Your task to perform on an android device: Add razer blade to the cart on walmart.com Image 0: 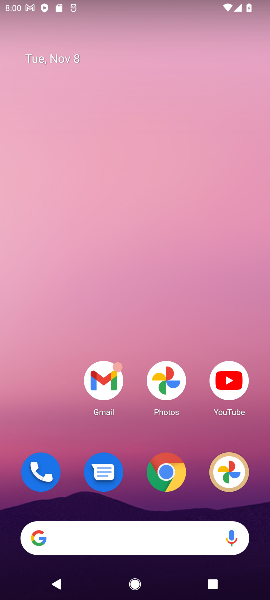
Step 0: click (163, 476)
Your task to perform on an android device: Add razer blade to the cart on walmart.com Image 1: 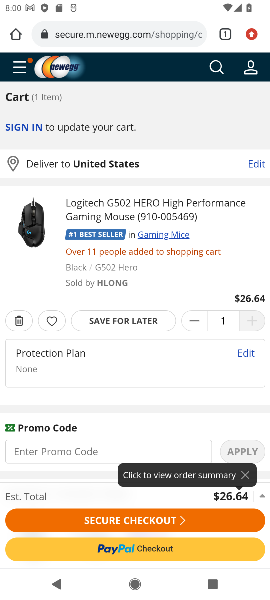
Step 1: click (147, 38)
Your task to perform on an android device: Add razer blade to the cart on walmart.com Image 2: 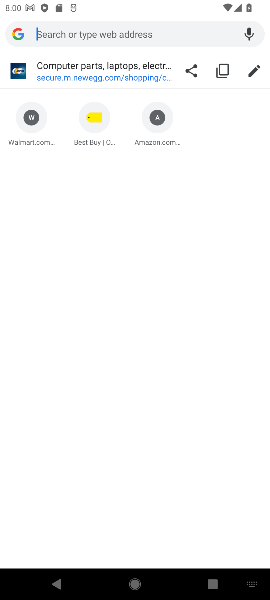
Step 2: click (28, 143)
Your task to perform on an android device: Add razer blade to the cart on walmart.com Image 3: 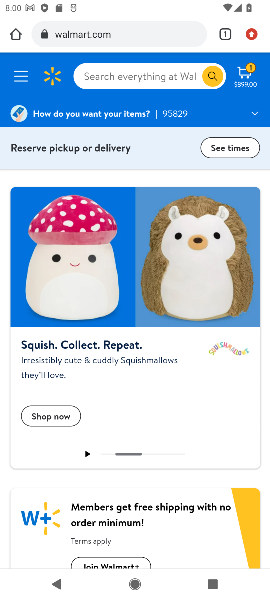
Step 3: click (152, 79)
Your task to perform on an android device: Add razer blade to the cart on walmart.com Image 4: 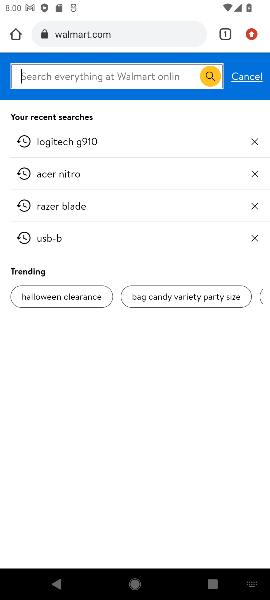
Step 4: type "razer blade"
Your task to perform on an android device: Add razer blade to the cart on walmart.com Image 5: 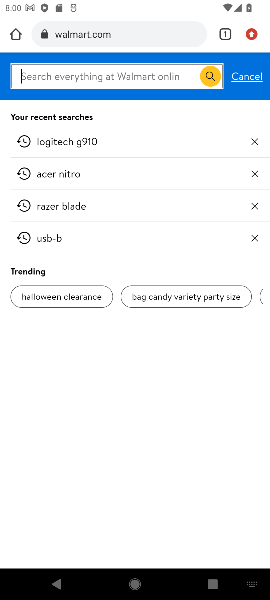
Step 5: press enter
Your task to perform on an android device: Add razer blade to the cart on walmart.com Image 6: 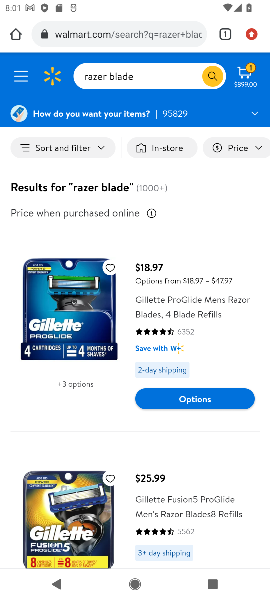
Step 6: click (157, 305)
Your task to perform on an android device: Add razer blade to the cart on walmart.com Image 7: 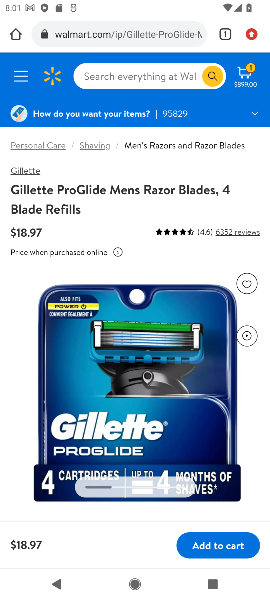
Step 7: click (214, 545)
Your task to perform on an android device: Add razer blade to the cart on walmart.com Image 8: 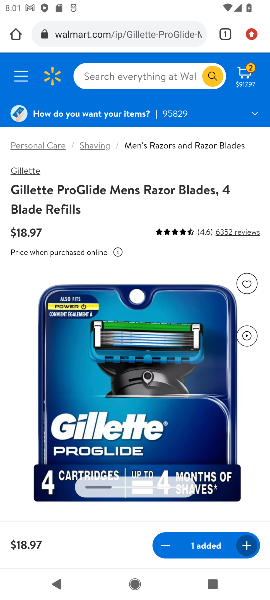
Step 8: click (243, 75)
Your task to perform on an android device: Add razer blade to the cart on walmart.com Image 9: 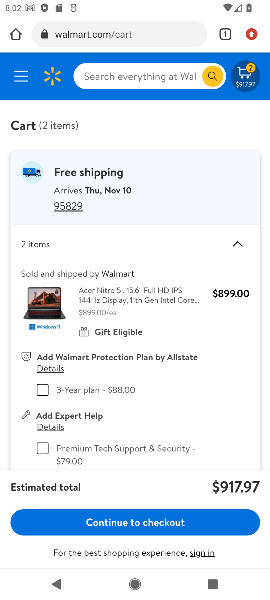
Step 9: task complete